Your task to perform on an android device: Go to privacy settings Image 0: 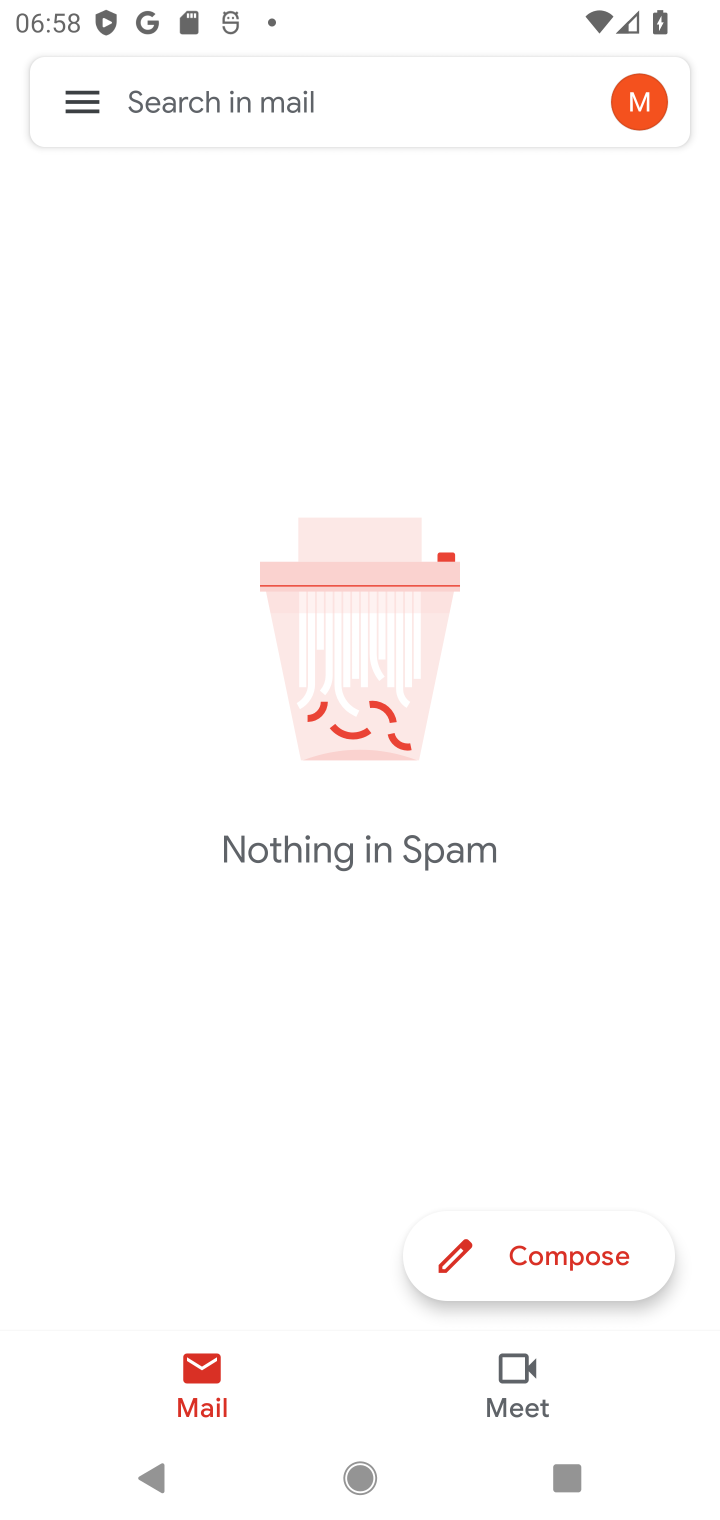
Step 0: press home button
Your task to perform on an android device: Go to privacy settings Image 1: 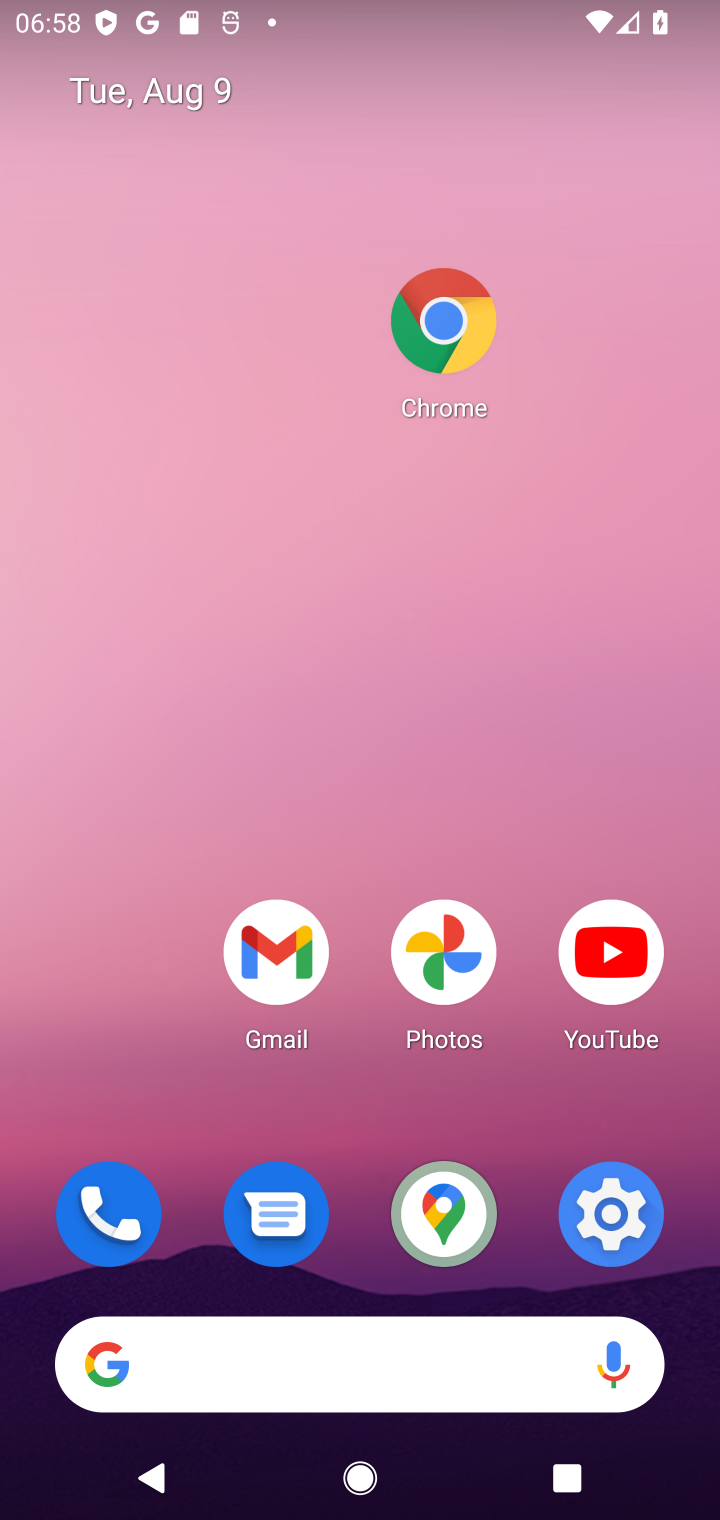
Step 1: drag from (465, 1432) to (286, 422)
Your task to perform on an android device: Go to privacy settings Image 2: 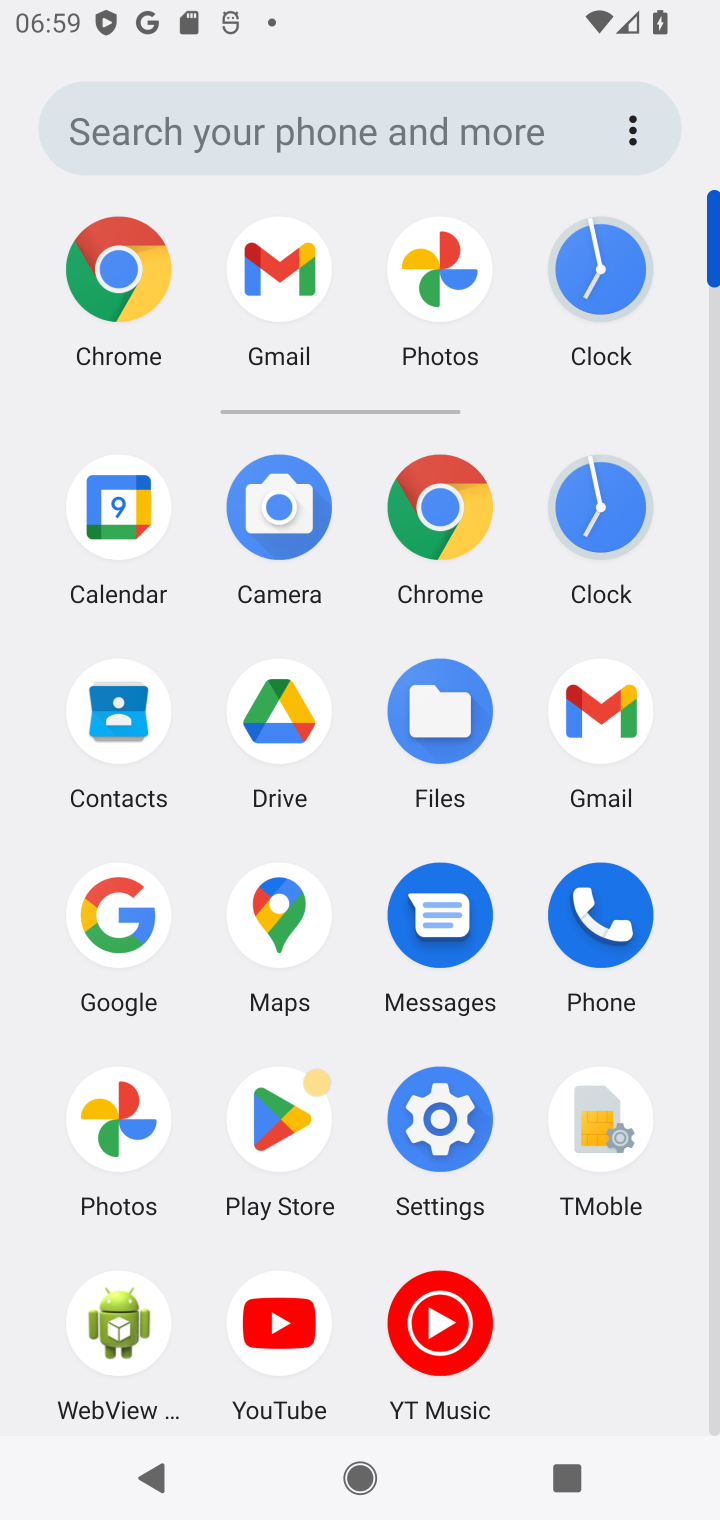
Step 2: click (447, 1072)
Your task to perform on an android device: Go to privacy settings Image 3: 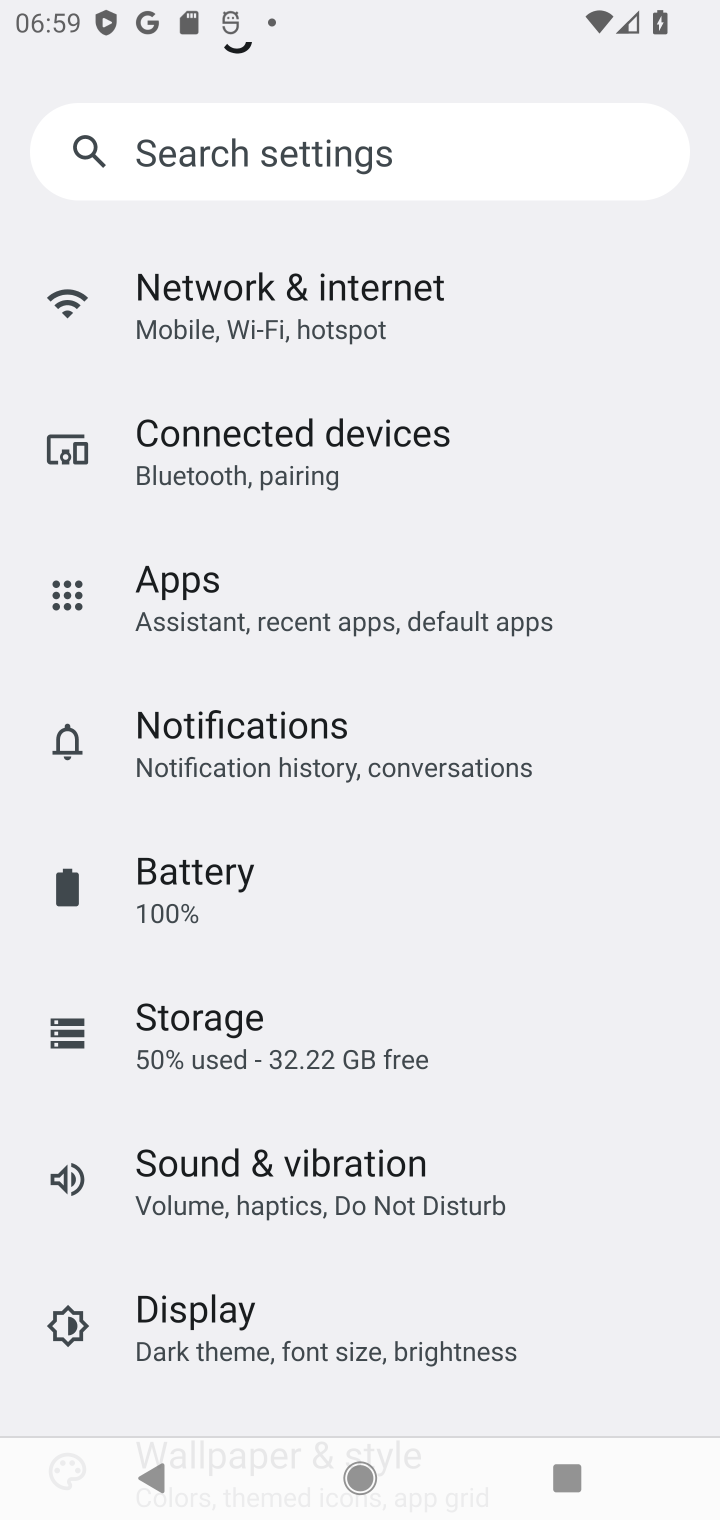
Step 3: click (267, 170)
Your task to perform on an android device: Go to privacy settings Image 4: 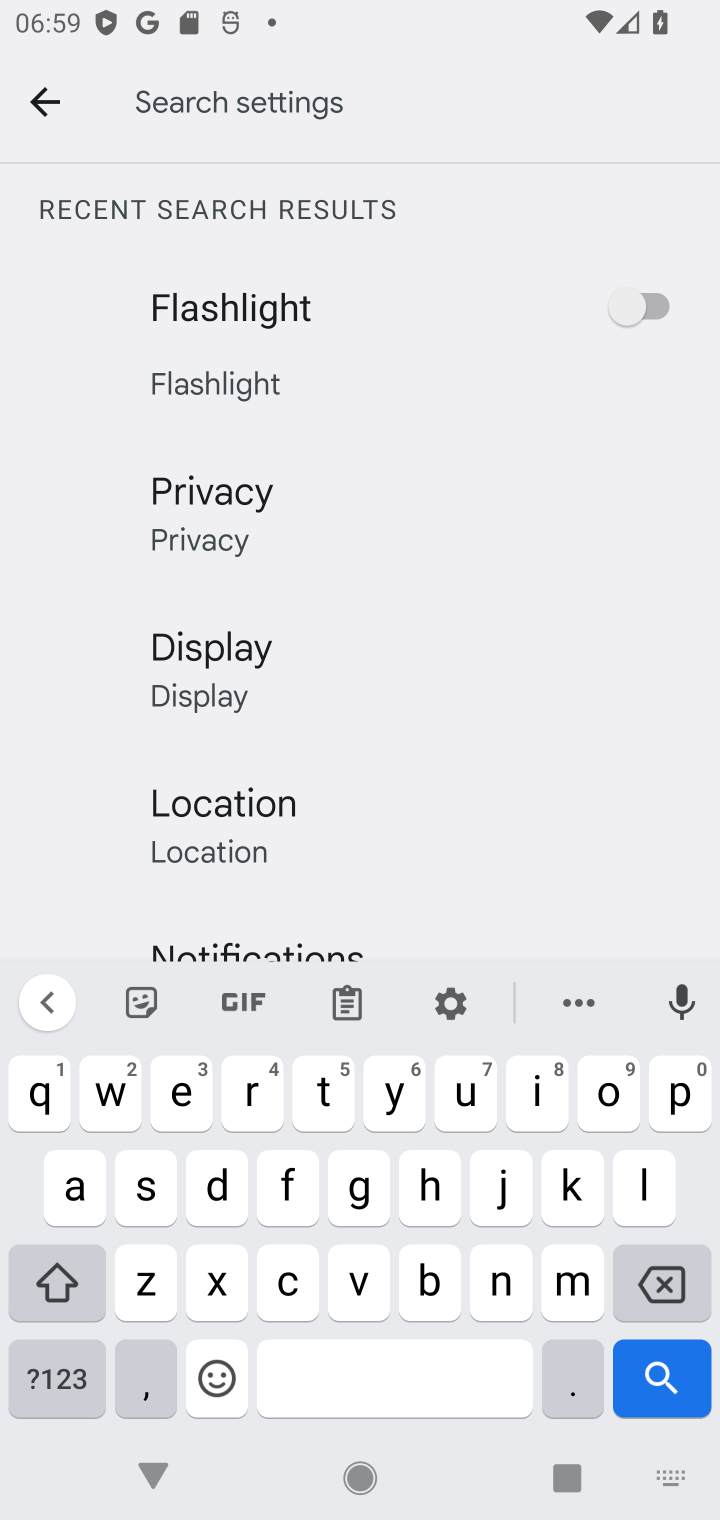
Step 4: click (300, 535)
Your task to perform on an android device: Go to privacy settings Image 5: 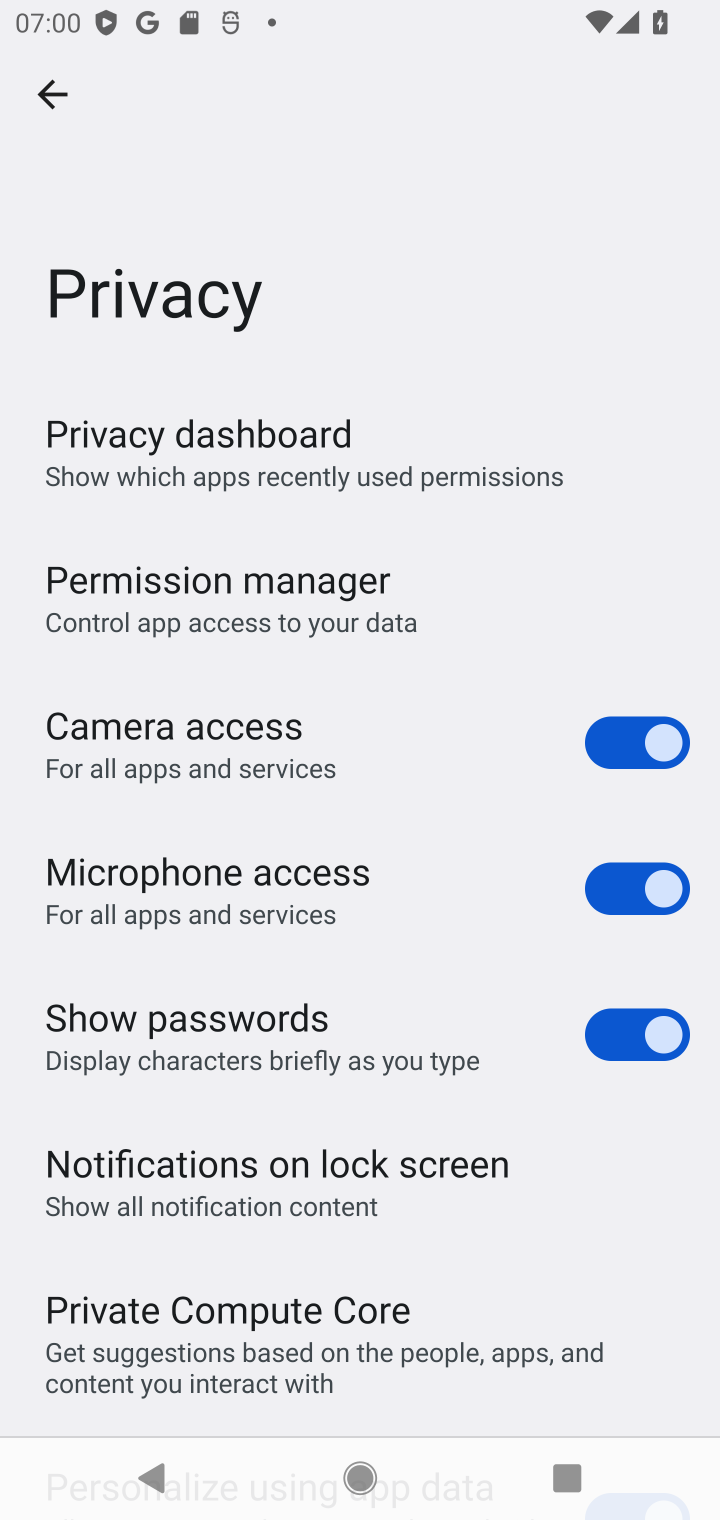
Step 5: task complete